Your task to perform on an android device: Open the map Image 0: 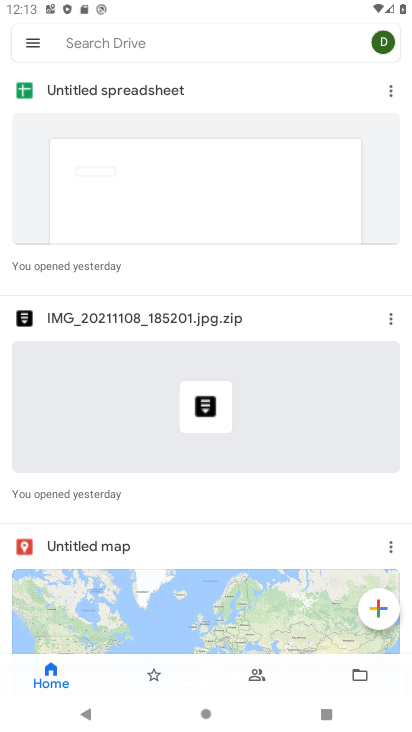
Step 0: press home button
Your task to perform on an android device: Open the map Image 1: 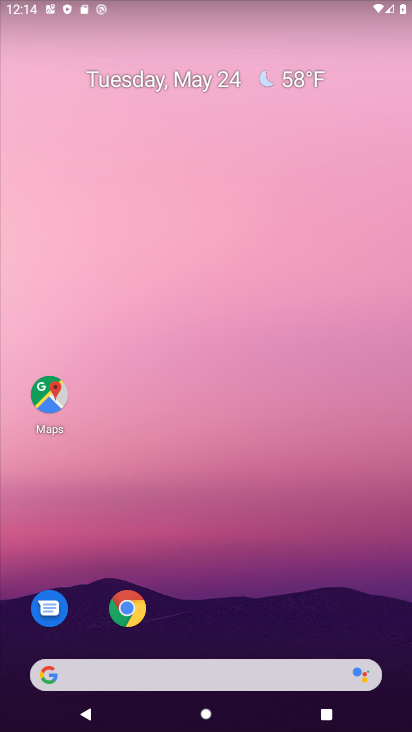
Step 1: drag from (257, 703) to (271, 115)
Your task to perform on an android device: Open the map Image 2: 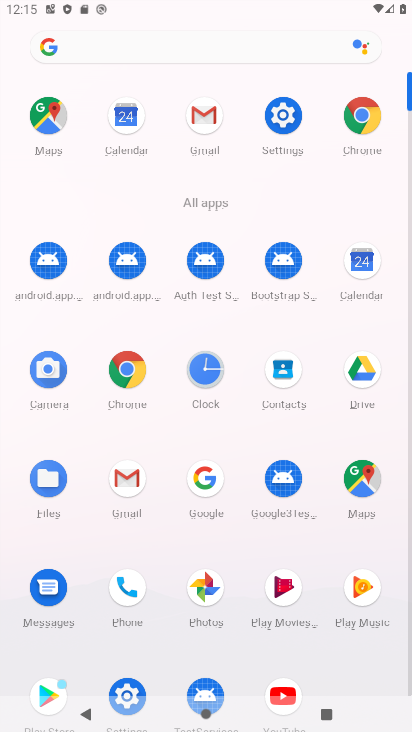
Step 2: click (64, 109)
Your task to perform on an android device: Open the map Image 3: 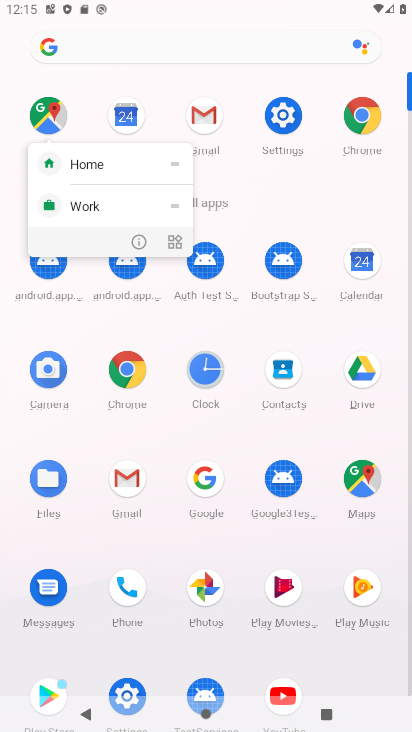
Step 3: click (50, 113)
Your task to perform on an android device: Open the map Image 4: 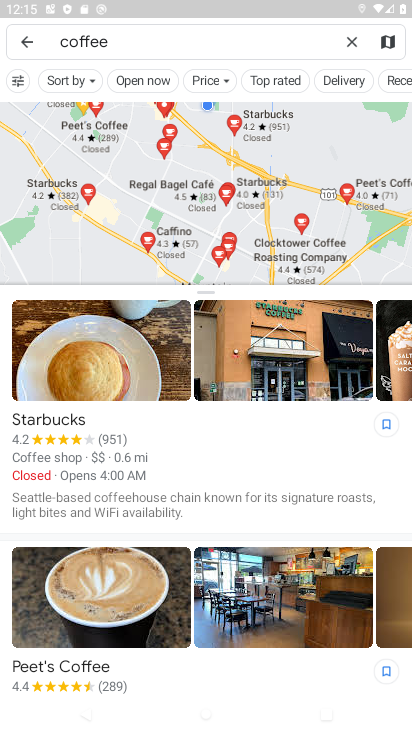
Step 4: click (27, 41)
Your task to perform on an android device: Open the map Image 5: 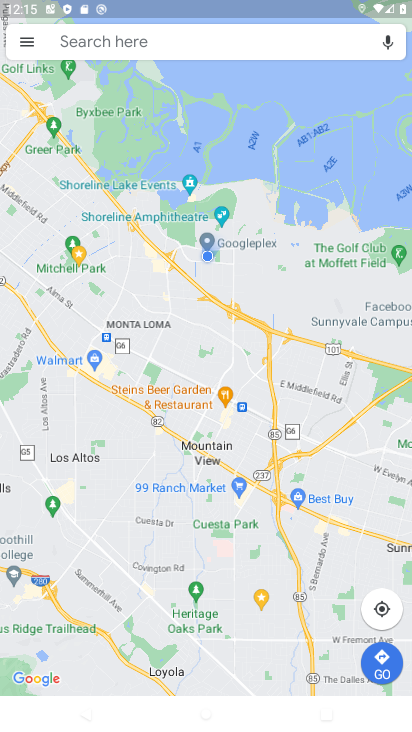
Step 5: task complete